Your task to perform on an android device: What's on my calendar today? Image 0: 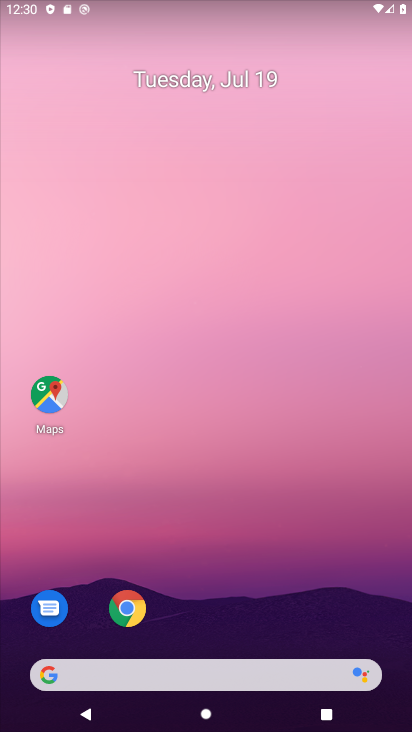
Step 0: drag from (263, 592) to (310, 286)
Your task to perform on an android device: What's on my calendar today? Image 1: 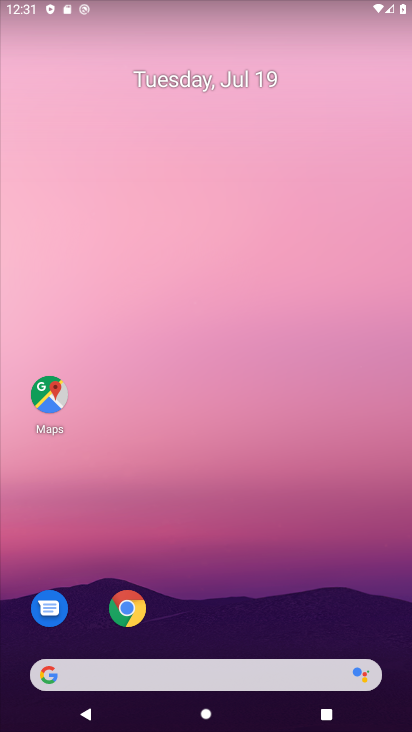
Step 1: drag from (268, 417) to (294, 155)
Your task to perform on an android device: What's on my calendar today? Image 2: 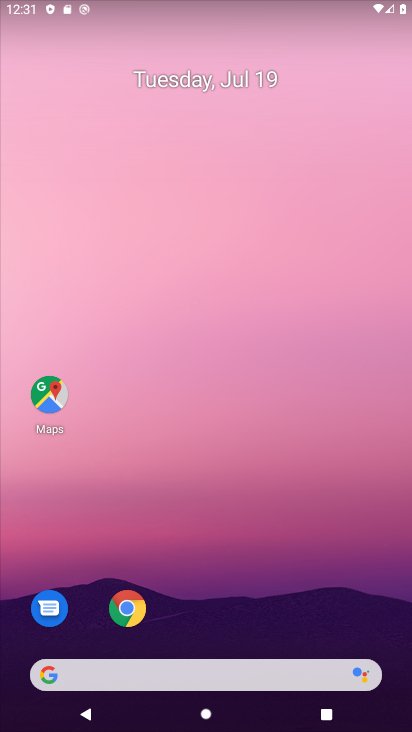
Step 2: drag from (261, 467) to (265, 186)
Your task to perform on an android device: What's on my calendar today? Image 3: 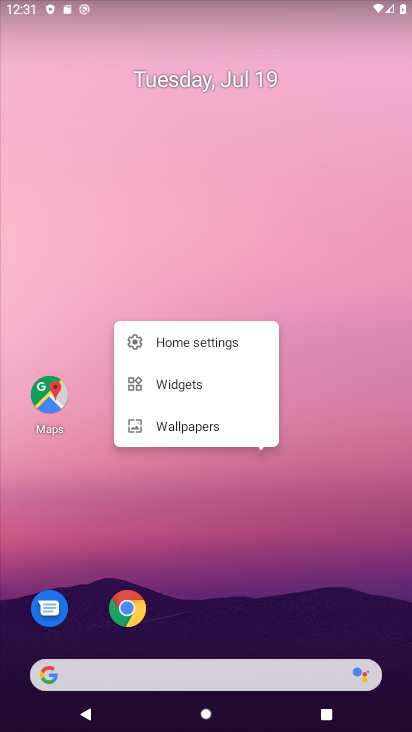
Step 3: click (239, 222)
Your task to perform on an android device: What's on my calendar today? Image 4: 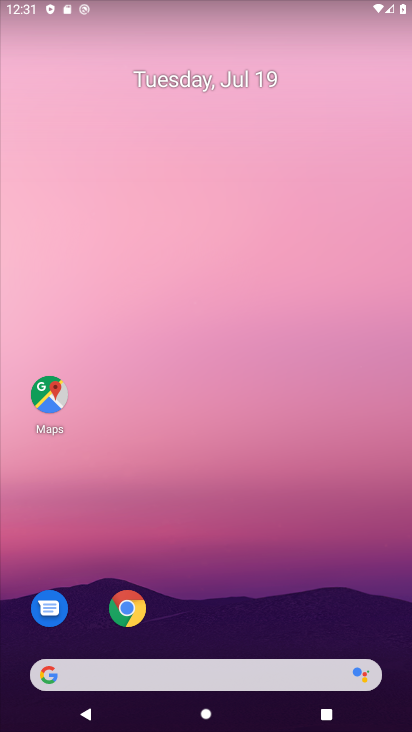
Step 4: drag from (265, 504) to (293, 170)
Your task to perform on an android device: What's on my calendar today? Image 5: 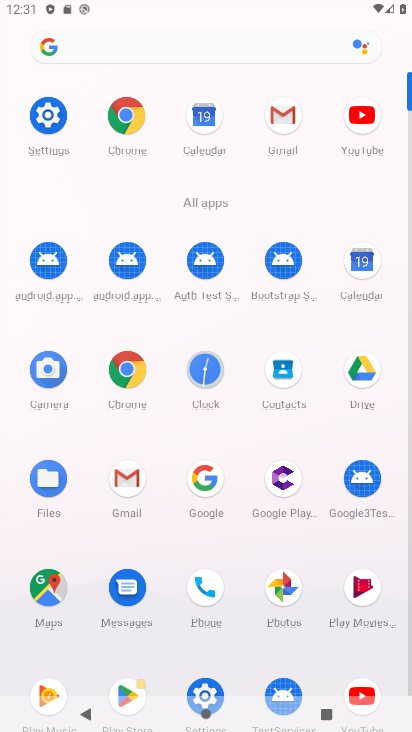
Step 5: click (366, 262)
Your task to perform on an android device: What's on my calendar today? Image 6: 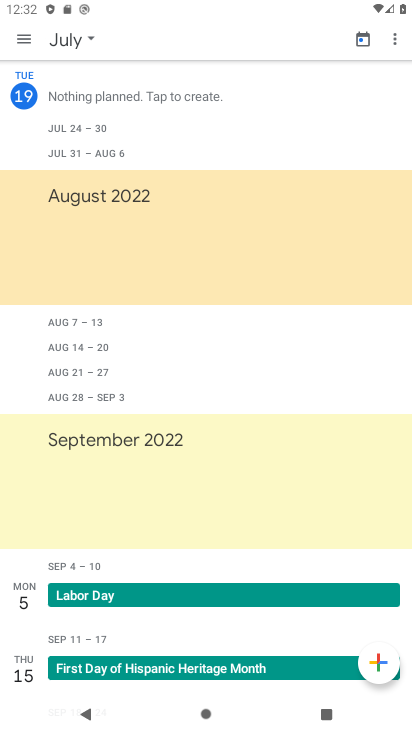
Step 6: task complete